Your task to perform on an android device: add a contact in the contacts app Image 0: 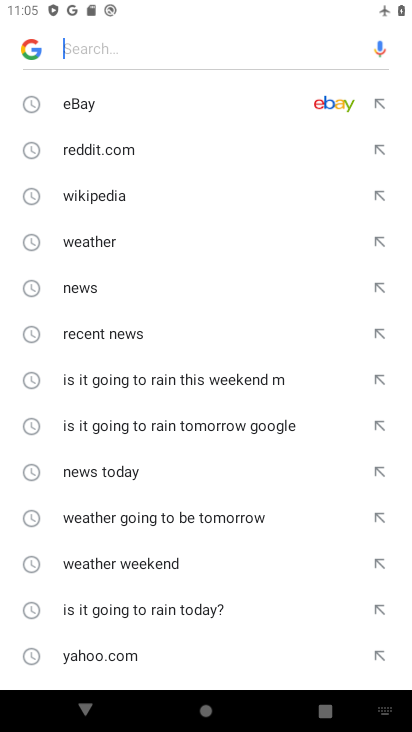
Step 0: press home button
Your task to perform on an android device: add a contact in the contacts app Image 1: 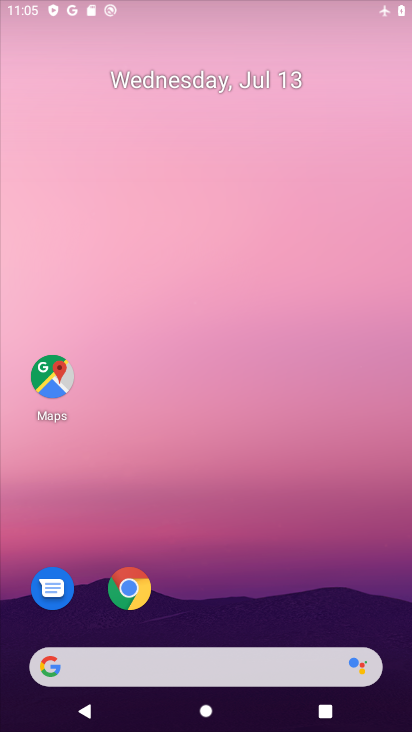
Step 1: drag from (218, 607) to (225, 122)
Your task to perform on an android device: add a contact in the contacts app Image 2: 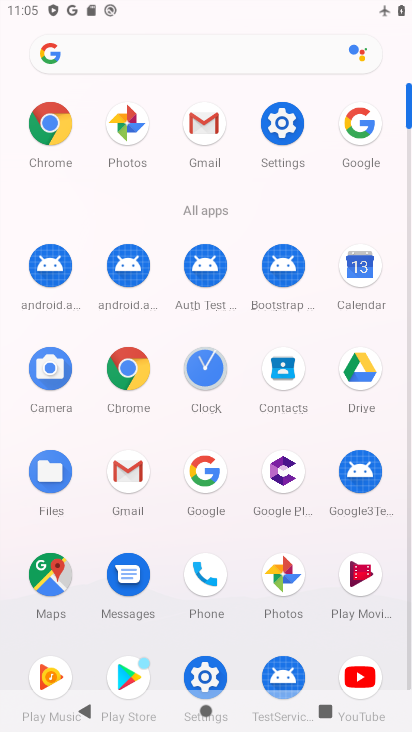
Step 2: click (278, 372)
Your task to perform on an android device: add a contact in the contacts app Image 3: 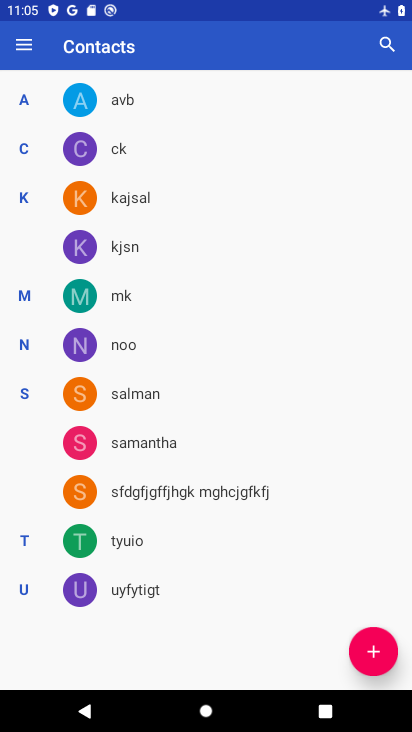
Step 3: click (381, 656)
Your task to perform on an android device: add a contact in the contacts app Image 4: 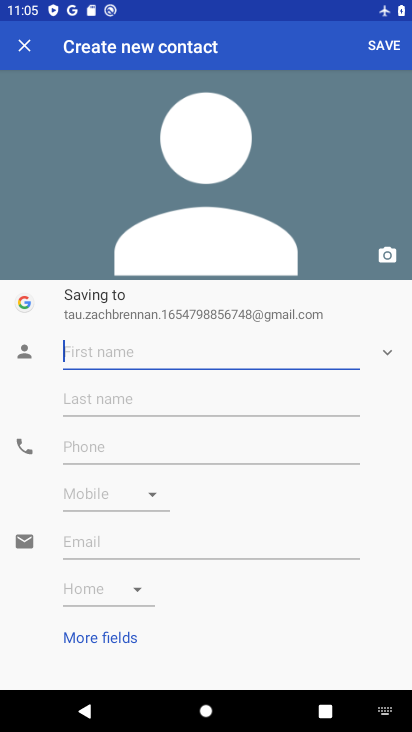
Step 4: type "jhchjgchjh"
Your task to perform on an android device: add a contact in the contacts app Image 5: 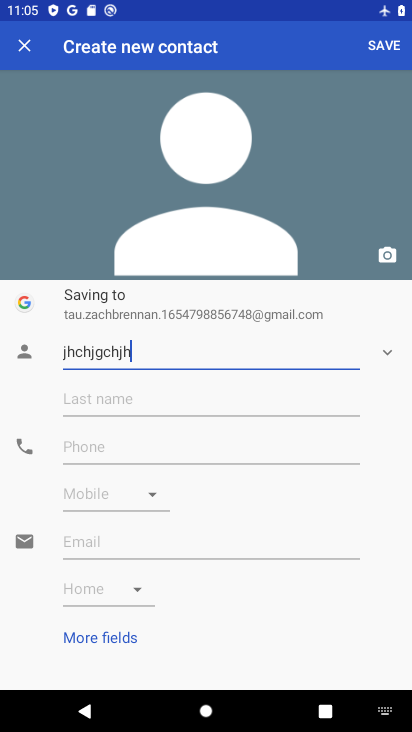
Step 5: click (148, 455)
Your task to perform on an android device: add a contact in the contacts app Image 6: 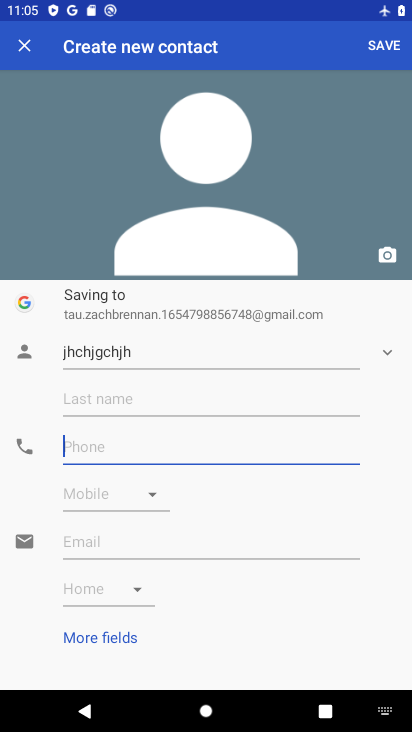
Step 6: type "644746367367"
Your task to perform on an android device: add a contact in the contacts app Image 7: 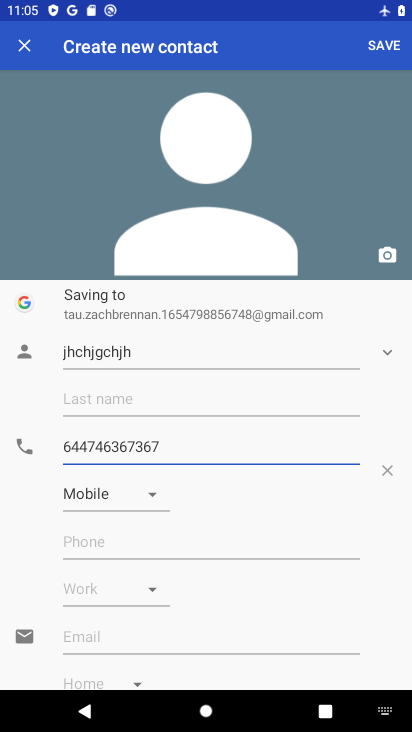
Step 7: click (376, 31)
Your task to perform on an android device: add a contact in the contacts app Image 8: 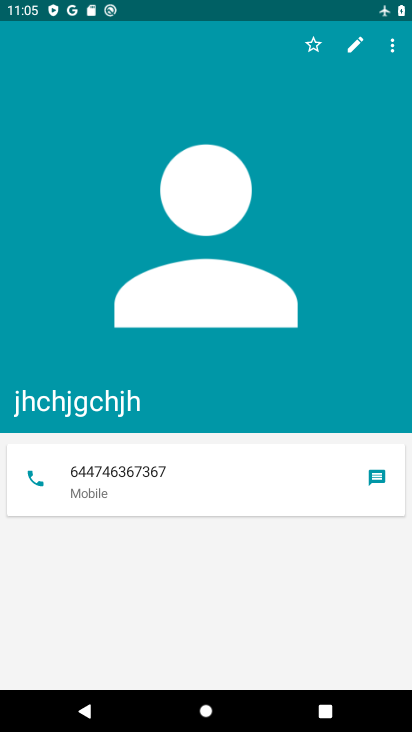
Step 8: task complete